Your task to perform on an android device: turn notification dots on Image 0: 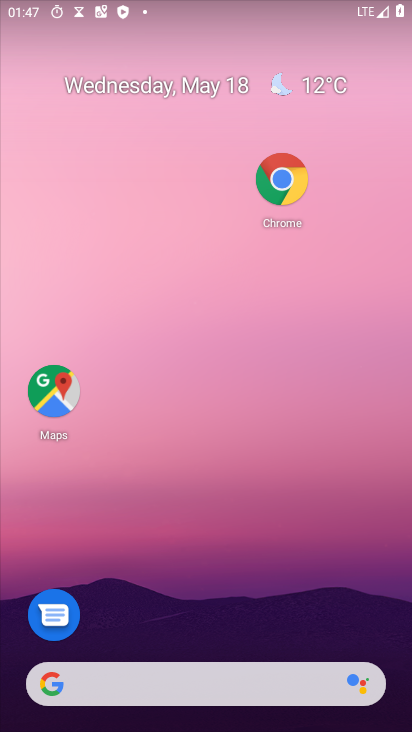
Step 0: drag from (147, 685) to (276, 110)
Your task to perform on an android device: turn notification dots on Image 1: 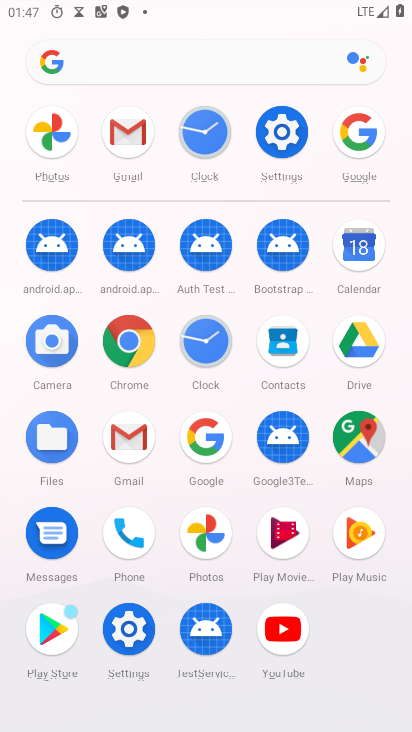
Step 1: click (287, 126)
Your task to perform on an android device: turn notification dots on Image 2: 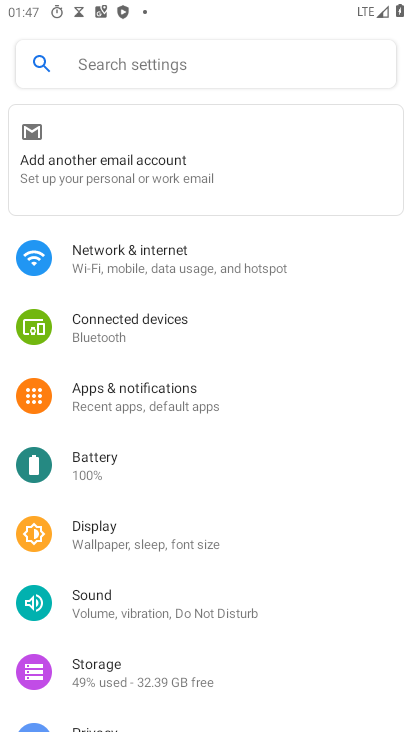
Step 2: click (173, 396)
Your task to perform on an android device: turn notification dots on Image 3: 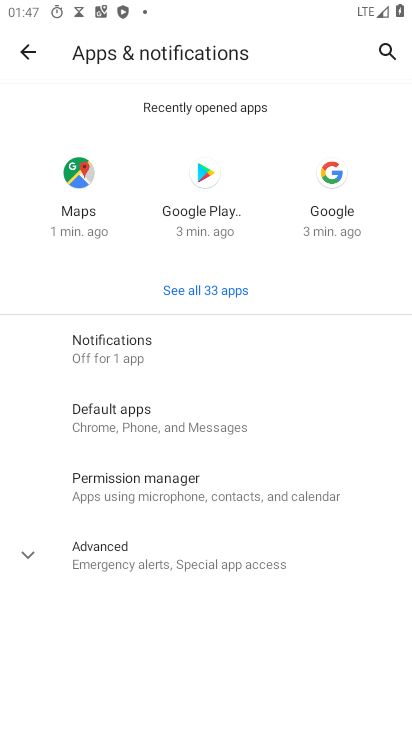
Step 3: click (130, 350)
Your task to perform on an android device: turn notification dots on Image 4: 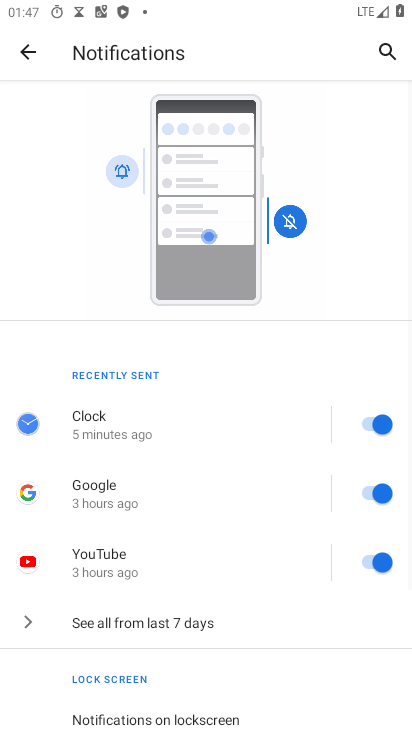
Step 4: drag from (230, 639) to (354, 139)
Your task to perform on an android device: turn notification dots on Image 5: 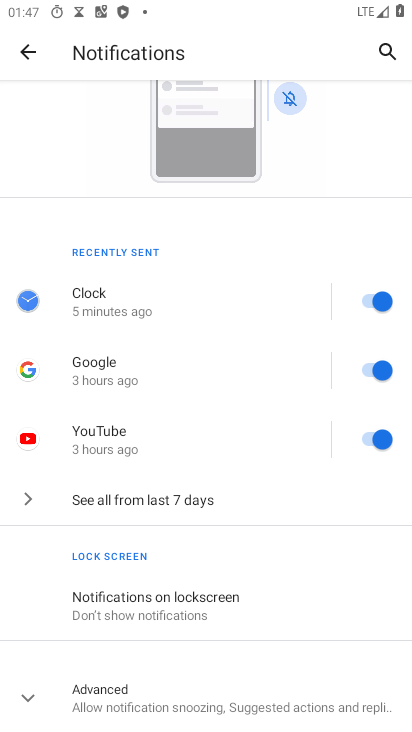
Step 5: click (125, 689)
Your task to perform on an android device: turn notification dots on Image 6: 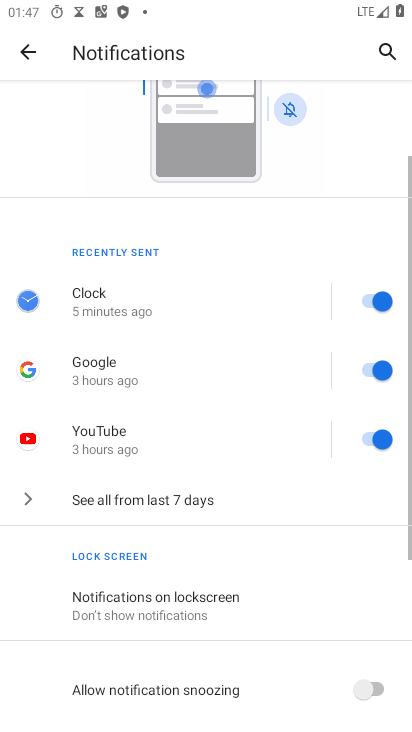
Step 6: task complete